Your task to perform on an android device: Go to display settings Image 0: 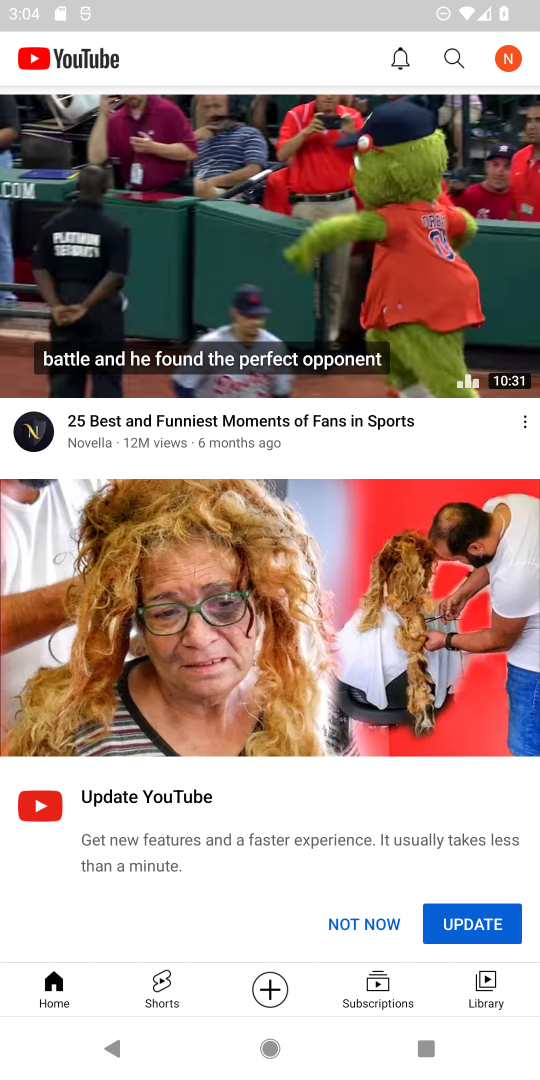
Step 0: press home button
Your task to perform on an android device: Go to display settings Image 1: 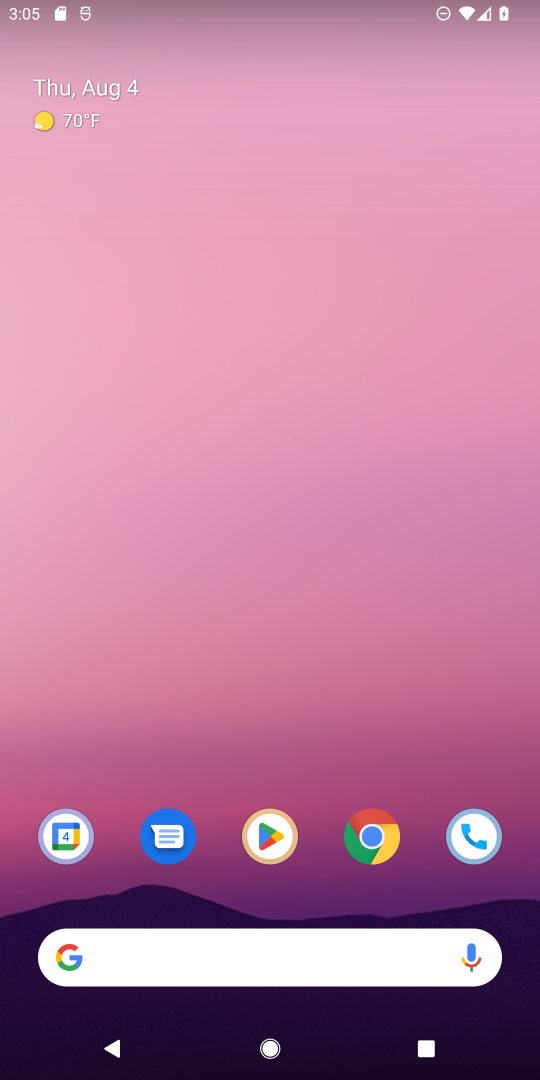
Step 1: drag from (116, 1007) to (177, 285)
Your task to perform on an android device: Go to display settings Image 2: 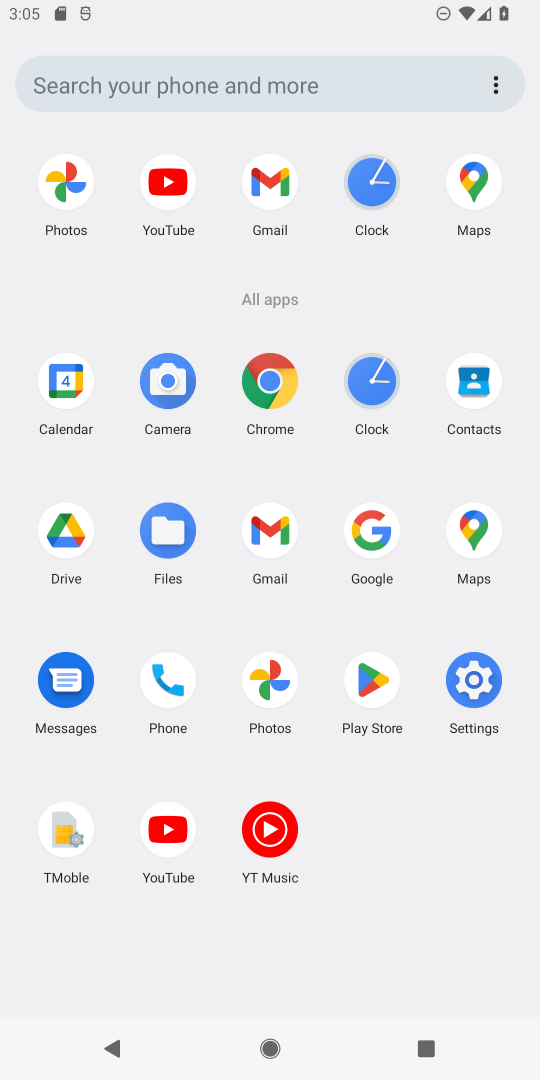
Step 2: click (474, 669)
Your task to perform on an android device: Go to display settings Image 3: 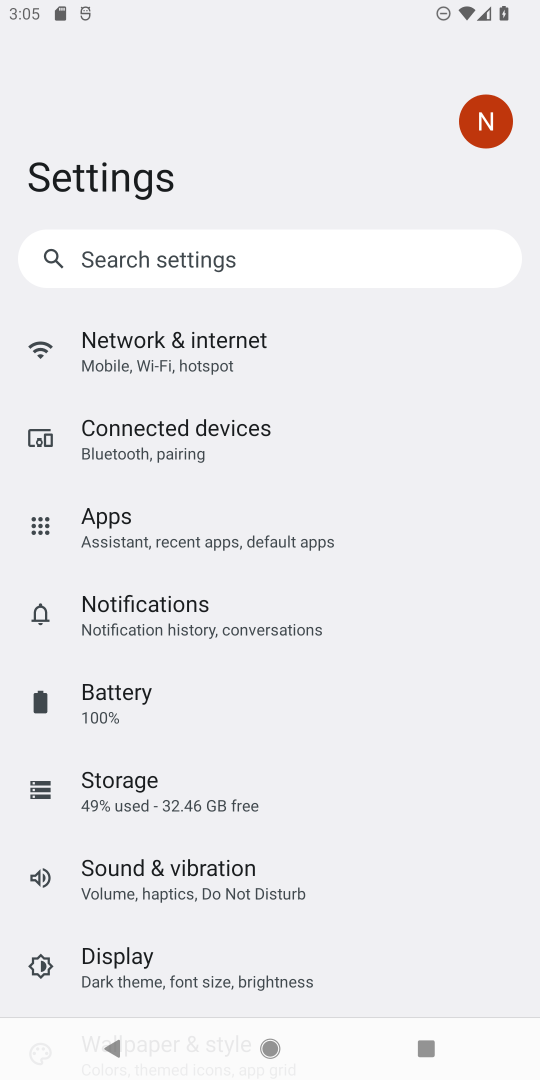
Step 3: click (153, 968)
Your task to perform on an android device: Go to display settings Image 4: 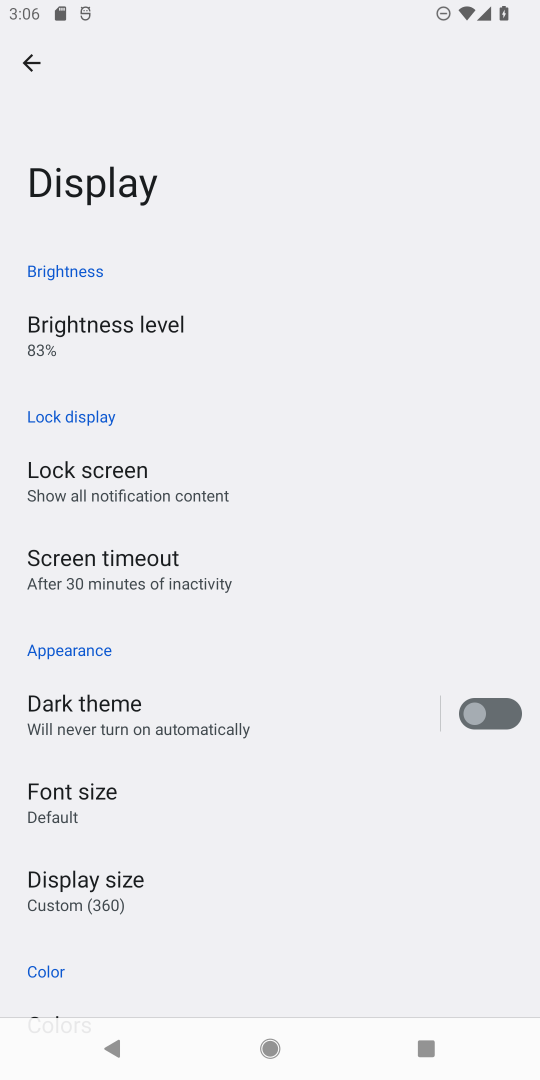
Step 4: task complete